Your task to perform on an android device: turn on improve location accuracy Image 0: 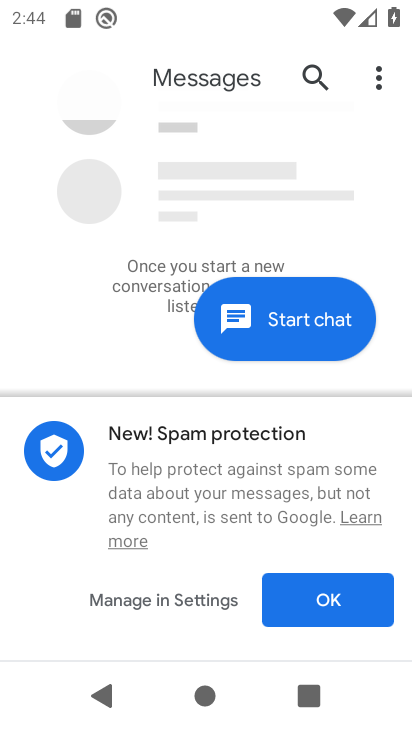
Step 0: press home button
Your task to perform on an android device: turn on improve location accuracy Image 1: 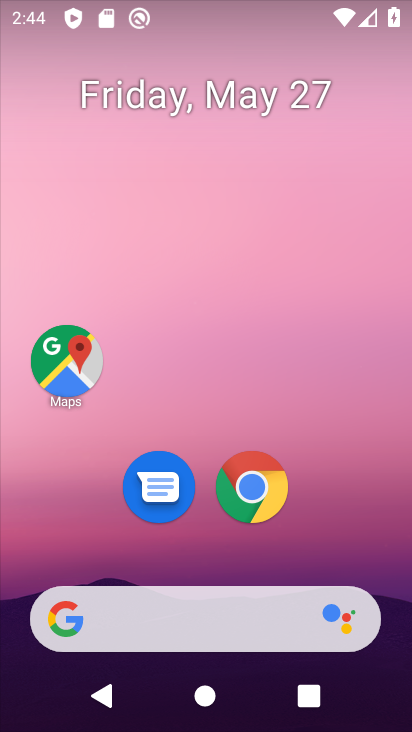
Step 1: drag from (164, 710) to (185, 110)
Your task to perform on an android device: turn on improve location accuracy Image 2: 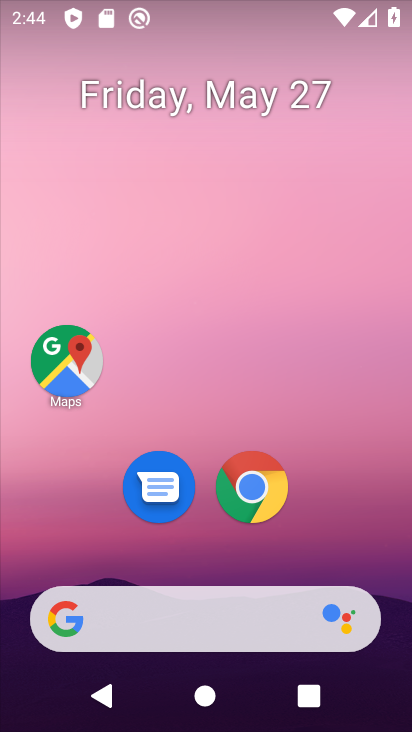
Step 2: drag from (144, 729) to (214, 24)
Your task to perform on an android device: turn on improve location accuracy Image 3: 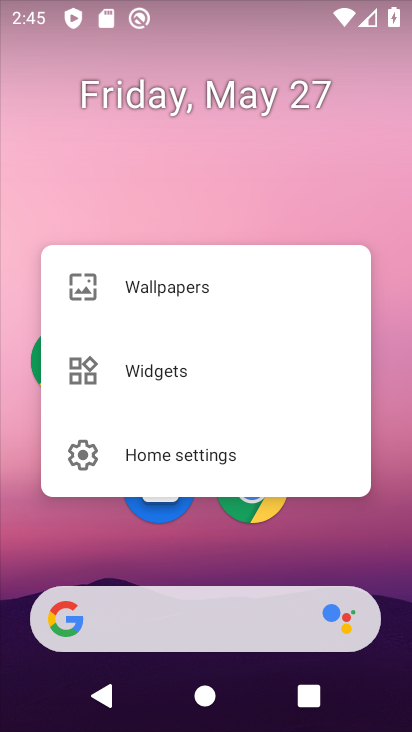
Step 3: click (278, 122)
Your task to perform on an android device: turn on improve location accuracy Image 4: 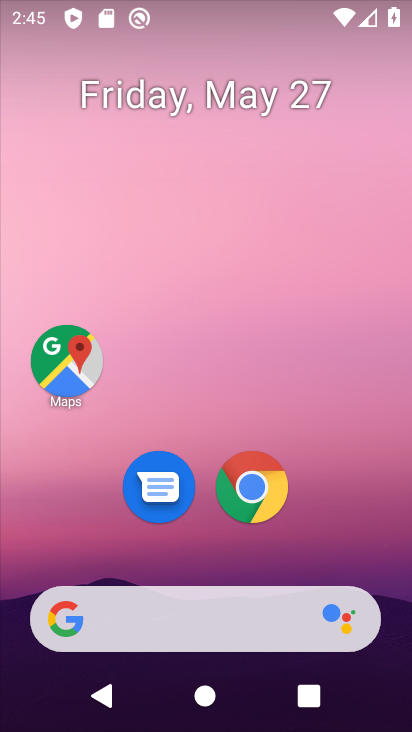
Step 4: drag from (152, 631) to (233, 185)
Your task to perform on an android device: turn on improve location accuracy Image 5: 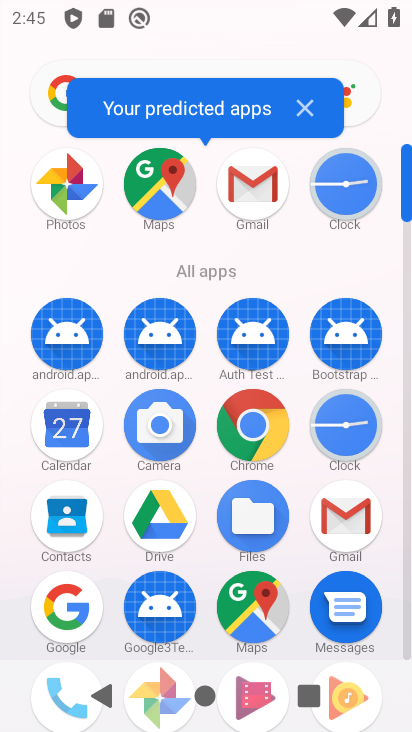
Step 5: drag from (109, 477) to (149, 154)
Your task to perform on an android device: turn on improve location accuracy Image 6: 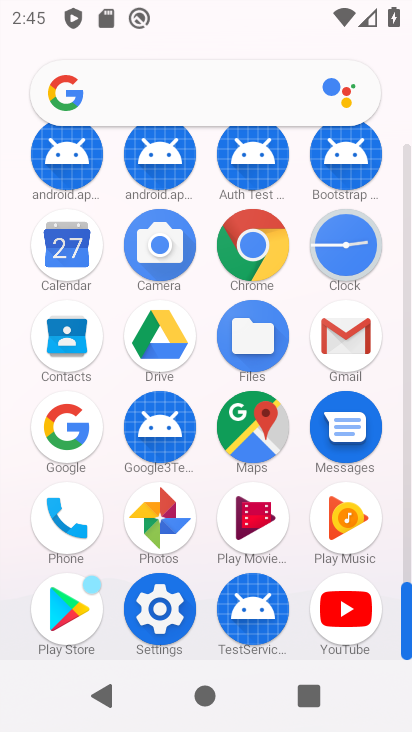
Step 6: click (160, 611)
Your task to perform on an android device: turn on improve location accuracy Image 7: 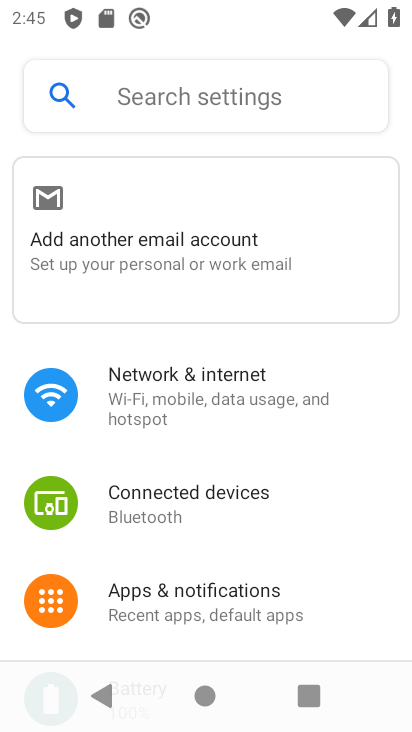
Step 7: drag from (95, 541) to (101, 181)
Your task to perform on an android device: turn on improve location accuracy Image 8: 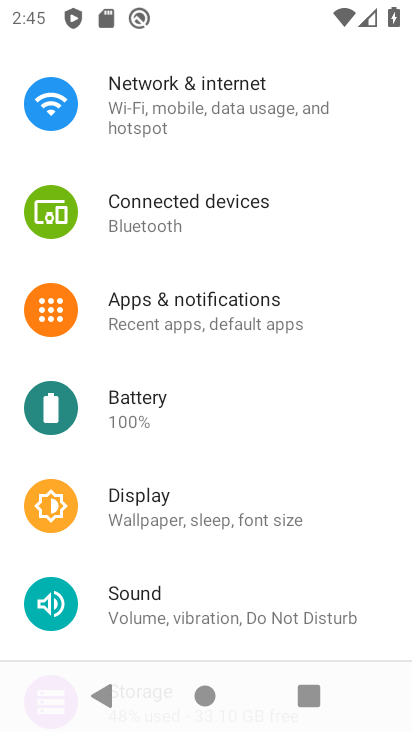
Step 8: drag from (350, 359) to (335, 186)
Your task to perform on an android device: turn on improve location accuracy Image 9: 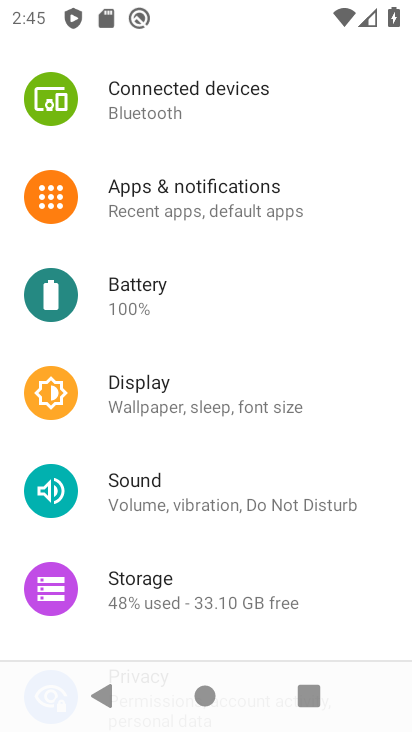
Step 9: drag from (250, 539) to (245, 164)
Your task to perform on an android device: turn on improve location accuracy Image 10: 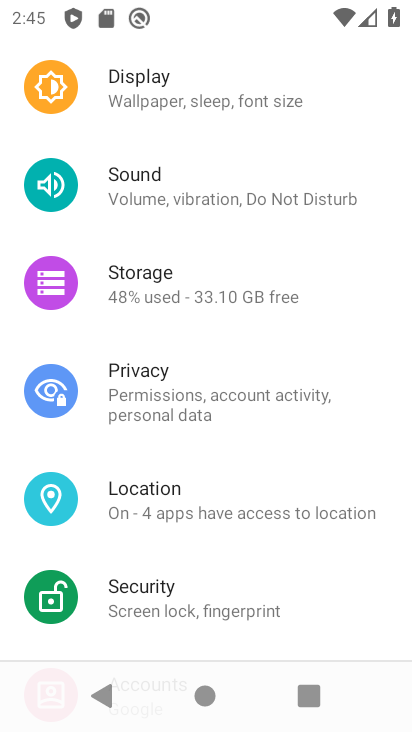
Step 10: click (177, 505)
Your task to perform on an android device: turn on improve location accuracy Image 11: 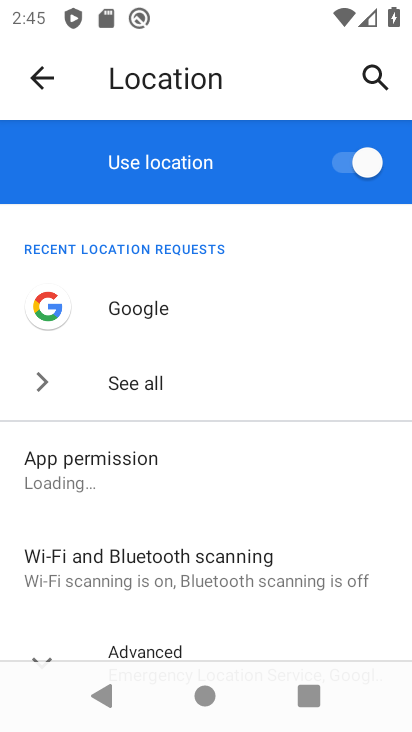
Step 11: drag from (207, 583) to (240, 220)
Your task to perform on an android device: turn on improve location accuracy Image 12: 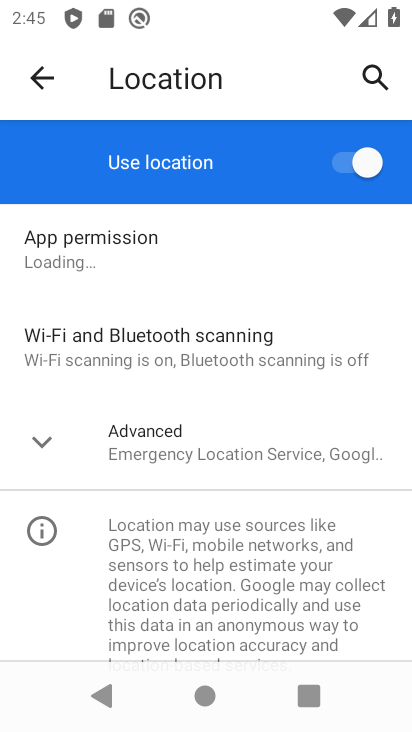
Step 12: click (198, 446)
Your task to perform on an android device: turn on improve location accuracy Image 13: 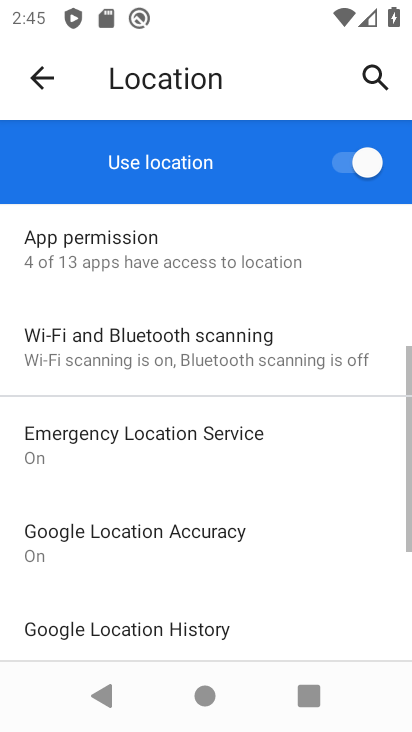
Step 13: click (216, 548)
Your task to perform on an android device: turn on improve location accuracy Image 14: 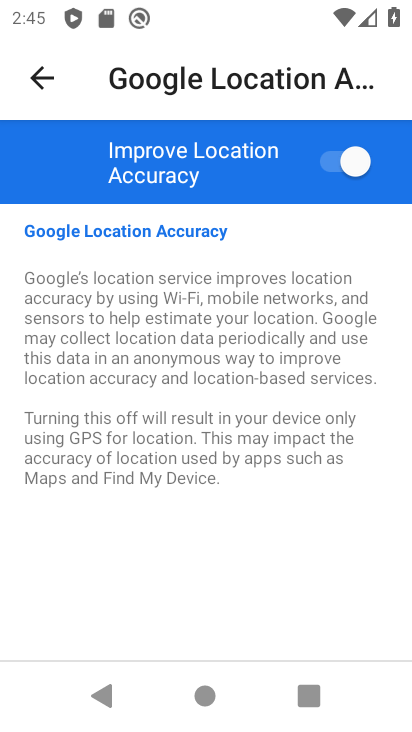
Step 14: task complete